Your task to perform on an android device: Turn off the flashlight Image 0: 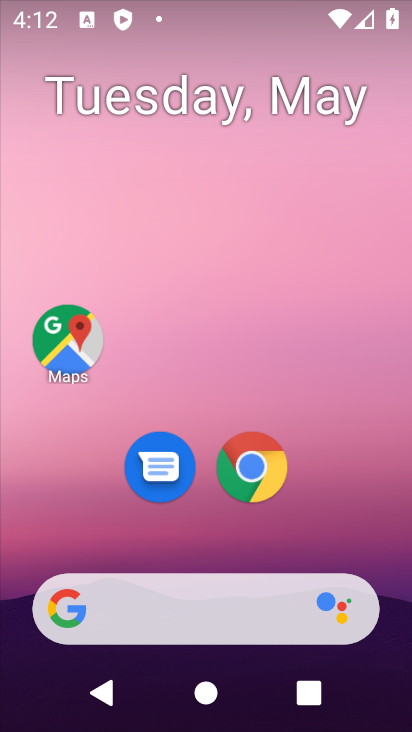
Step 0: drag from (284, 1) to (279, 594)
Your task to perform on an android device: Turn off the flashlight Image 1: 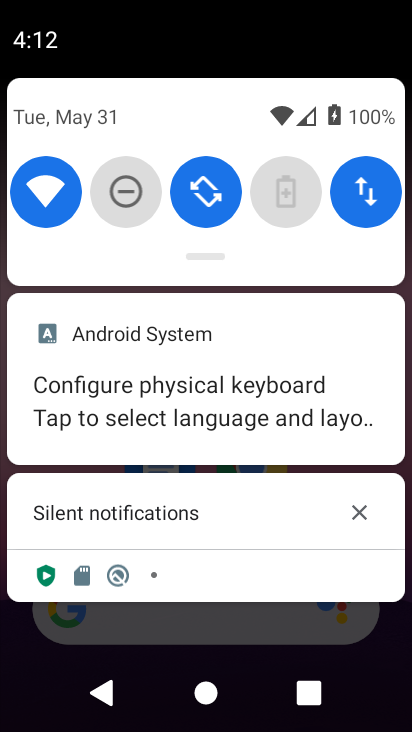
Step 1: task complete